Your task to perform on an android device: turn off location Image 0: 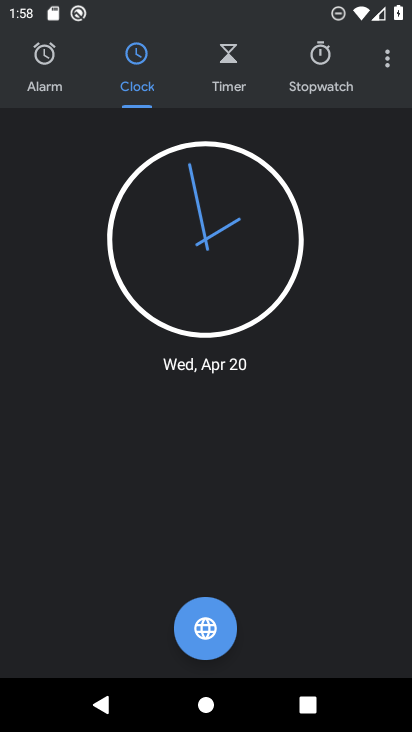
Step 0: press back button
Your task to perform on an android device: turn off location Image 1: 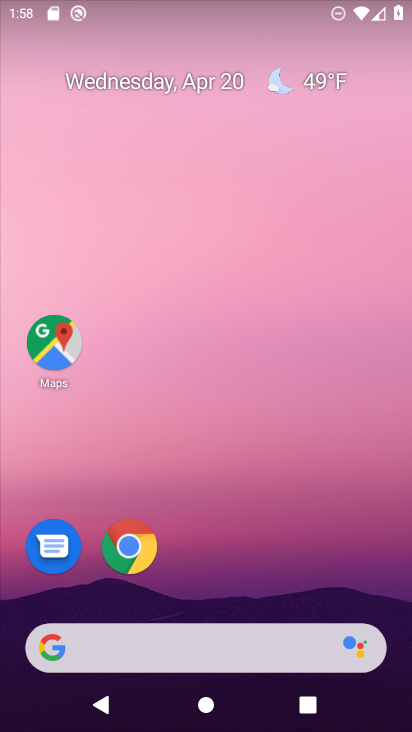
Step 1: drag from (294, 486) to (374, 57)
Your task to perform on an android device: turn off location Image 2: 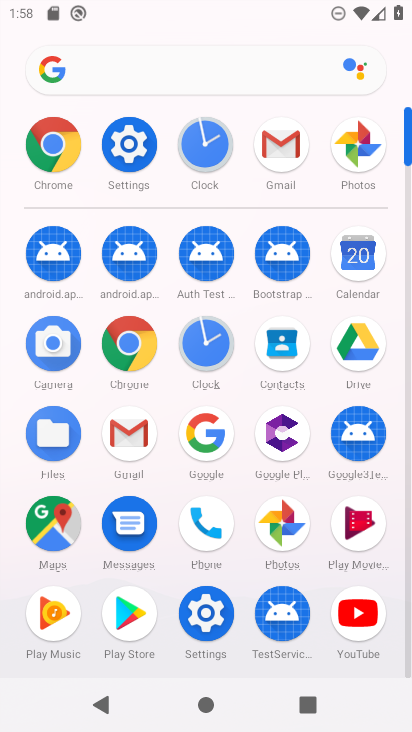
Step 2: click (133, 145)
Your task to perform on an android device: turn off location Image 3: 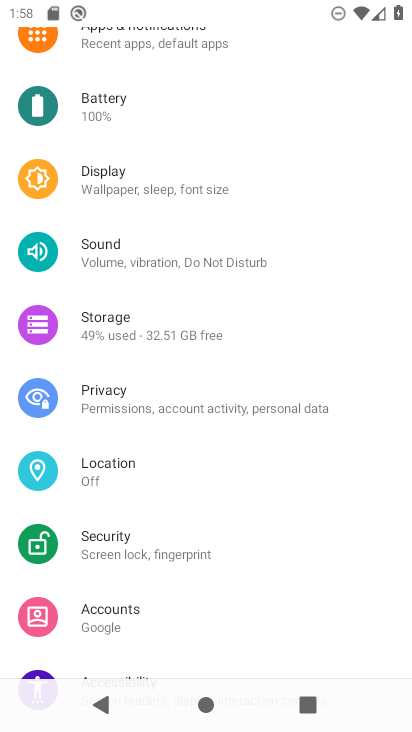
Step 3: click (134, 474)
Your task to perform on an android device: turn off location Image 4: 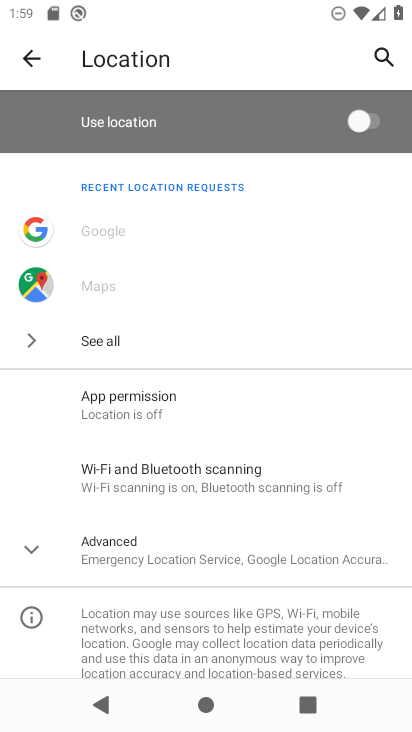
Step 4: task complete